Your task to perform on an android device: open chrome and create a bookmark for the current page Image 0: 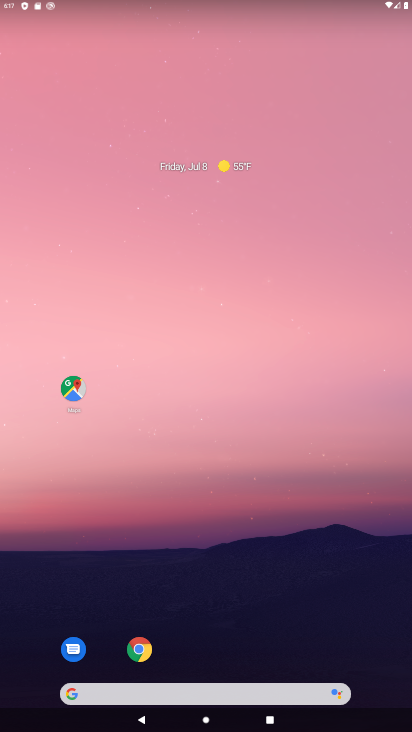
Step 0: drag from (311, 688) to (377, 41)
Your task to perform on an android device: open chrome and create a bookmark for the current page Image 1: 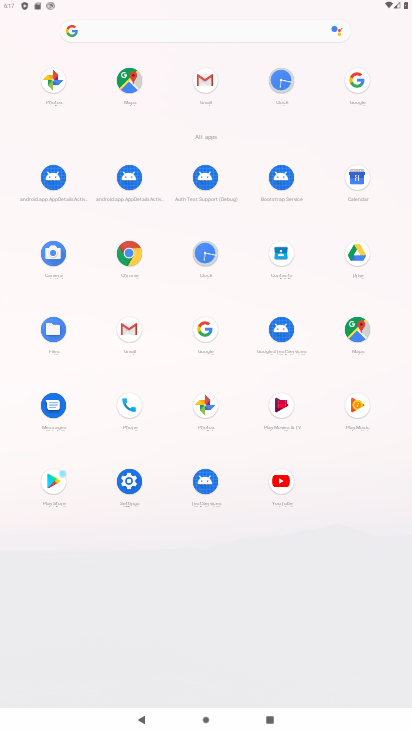
Step 1: click (127, 255)
Your task to perform on an android device: open chrome and create a bookmark for the current page Image 2: 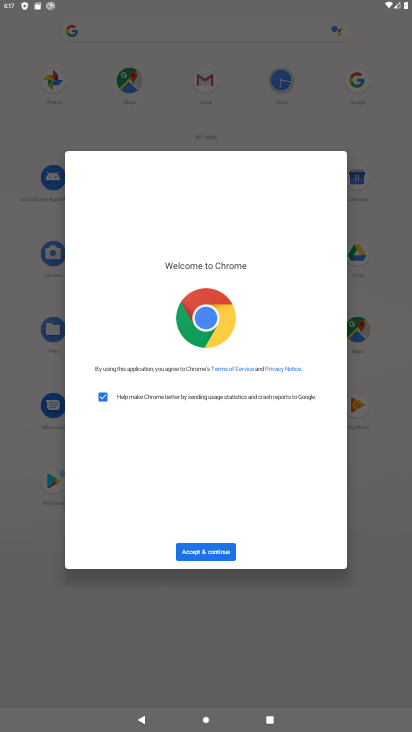
Step 2: click (213, 548)
Your task to perform on an android device: open chrome and create a bookmark for the current page Image 3: 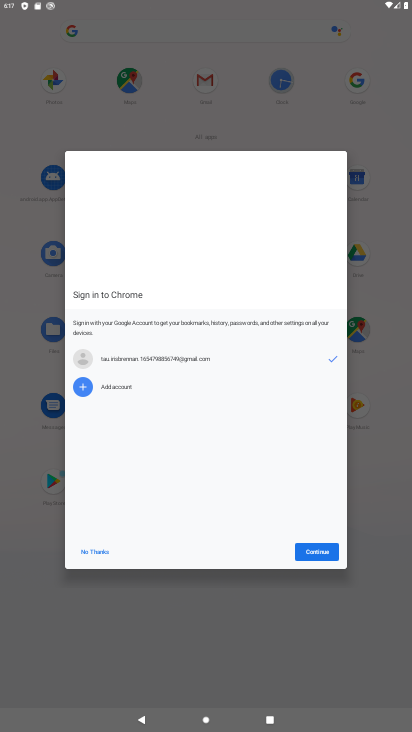
Step 3: click (94, 548)
Your task to perform on an android device: open chrome and create a bookmark for the current page Image 4: 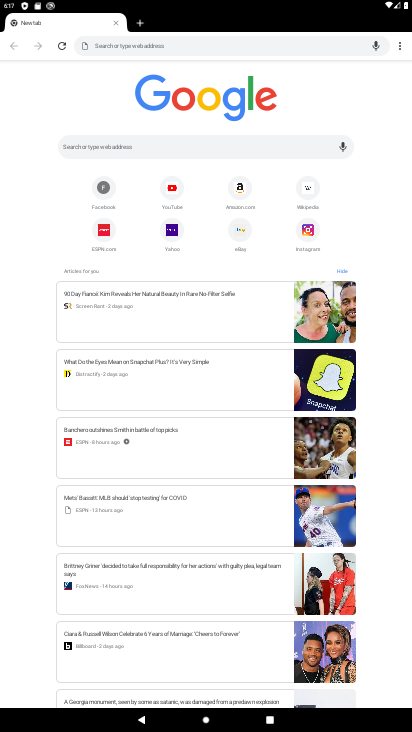
Step 4: drag from (399, 40) to (242, 69)
Your task to perform on an android device: open chrome and create a bookmark for the current page Image 5: 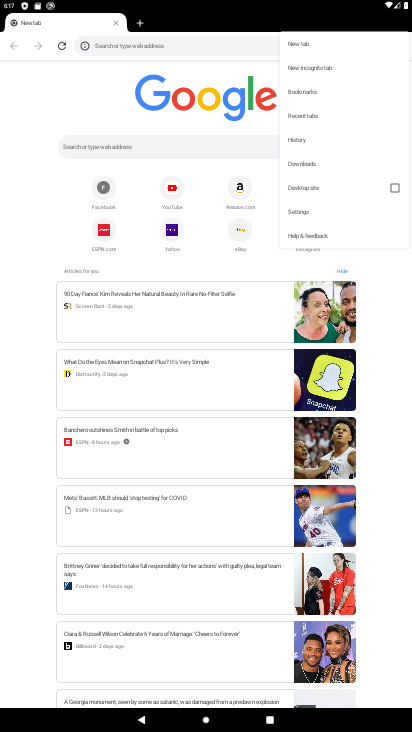
Step 5: click (226, 73)
Your task to perform on an android device: open chrome and create a bookmark for the current page Image 6: 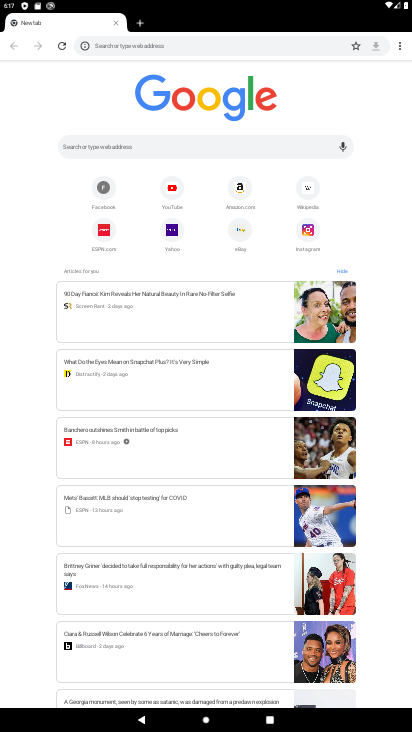
Step 6: click (355, 44)
Your task to perform on an android device: open chrome and create a bookmark for the current page Image 7: 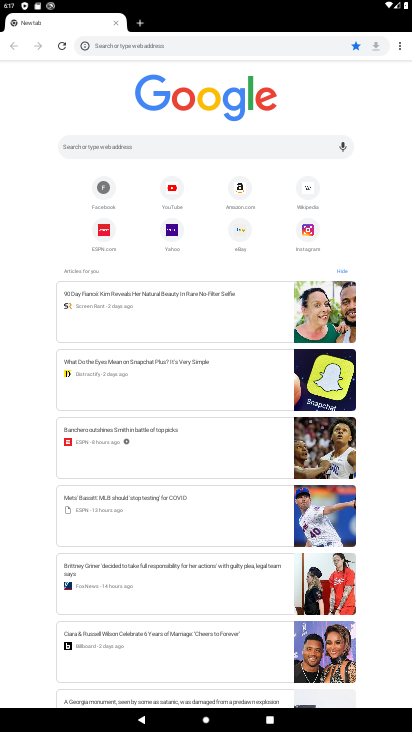
Step 7: task complete